Your task to perform on an android device: Go to ESPN.com Image 0: 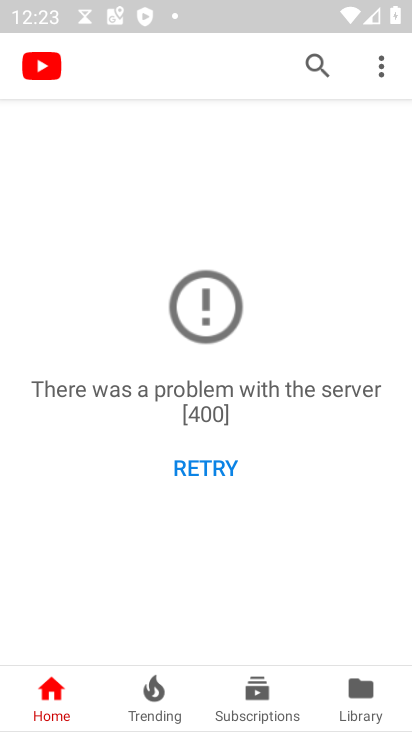
Step 0: press home button
Your task to perform on an android device: Go to ESPN.com Image 1: 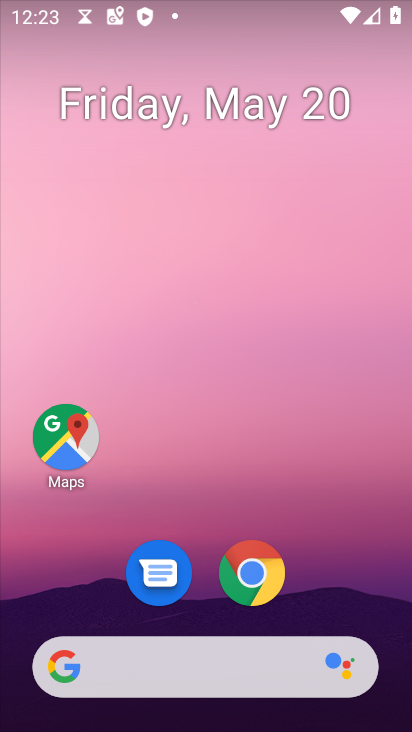
Step 1: click (259, 561)
Your task to perform on an android device: Go to ESPN.com Image 2: 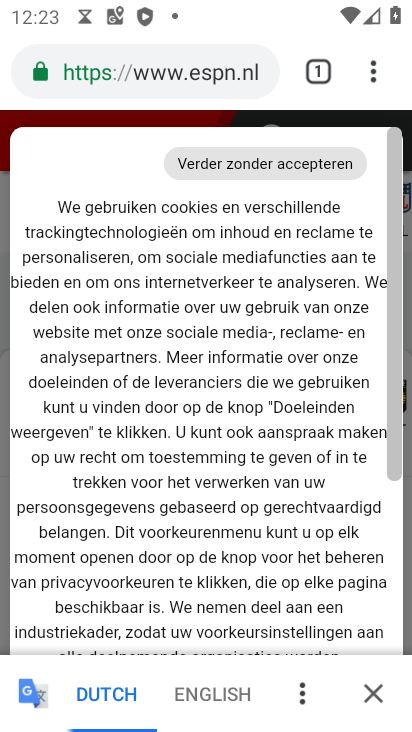
Step 2: click (154, 77)
Your task to perform on an android device: Go to ESPN.com Image 3: 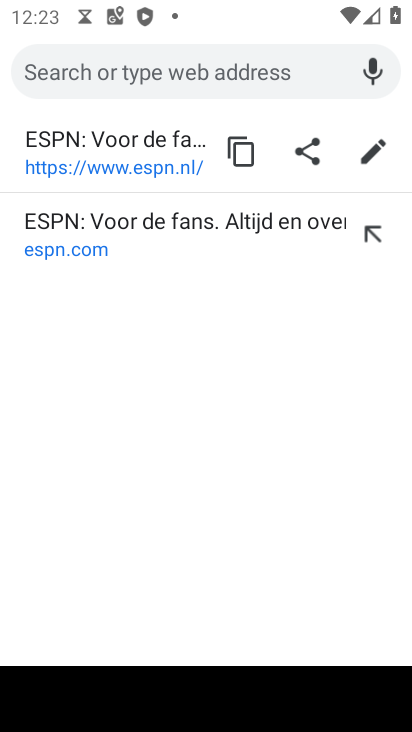
Step 3: click (128, 117)
Your task to perform on an android device: Go to ESPN.com Image 4: 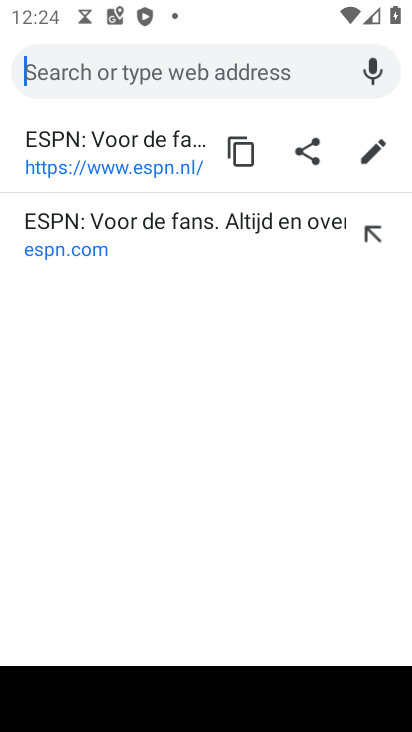
Step 4: click (133, 176)
Your task to perform on an android device: Go to ESPN.com Image 5: 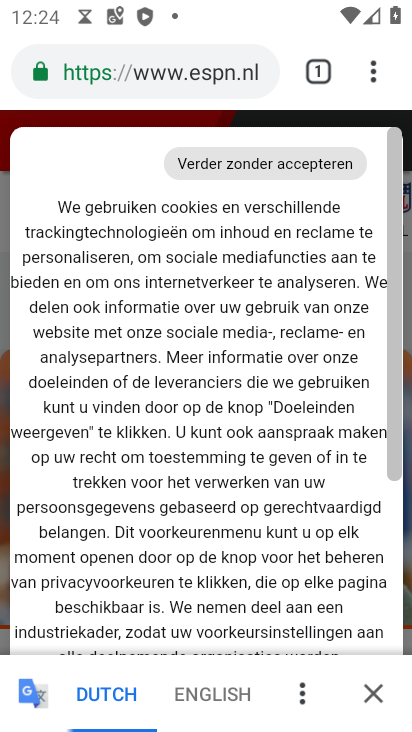
Step 5: task complete